Your task to perform on an android device: Add dell xps to the cart on amazon, then select checkout. Image 0: 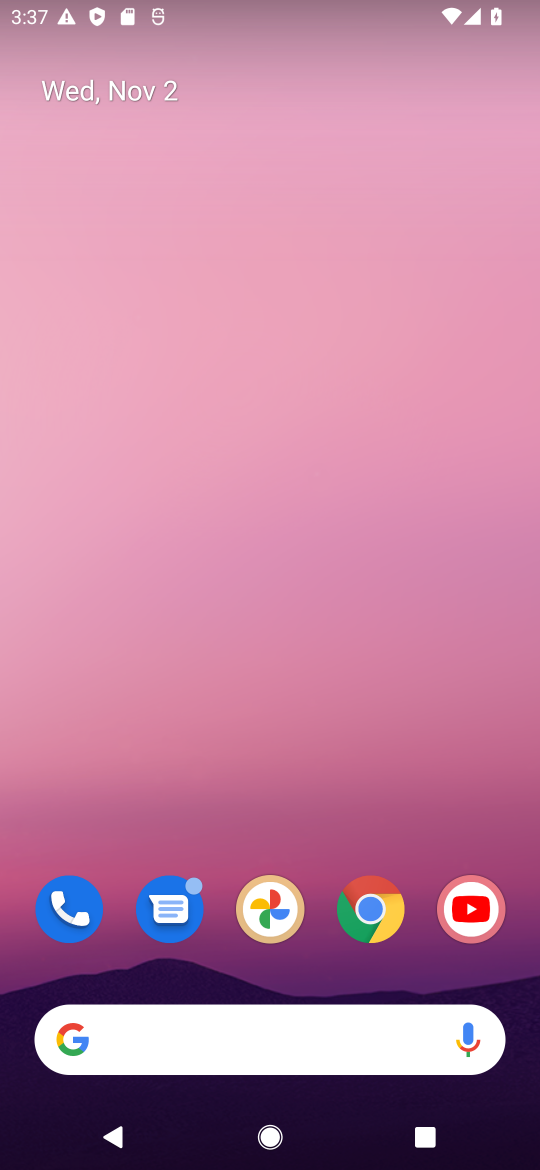
Step 0: click (377, 919)
Your task to perform on an android device: Add dell xps to the cart on amazon, then select checkout. Image 1: 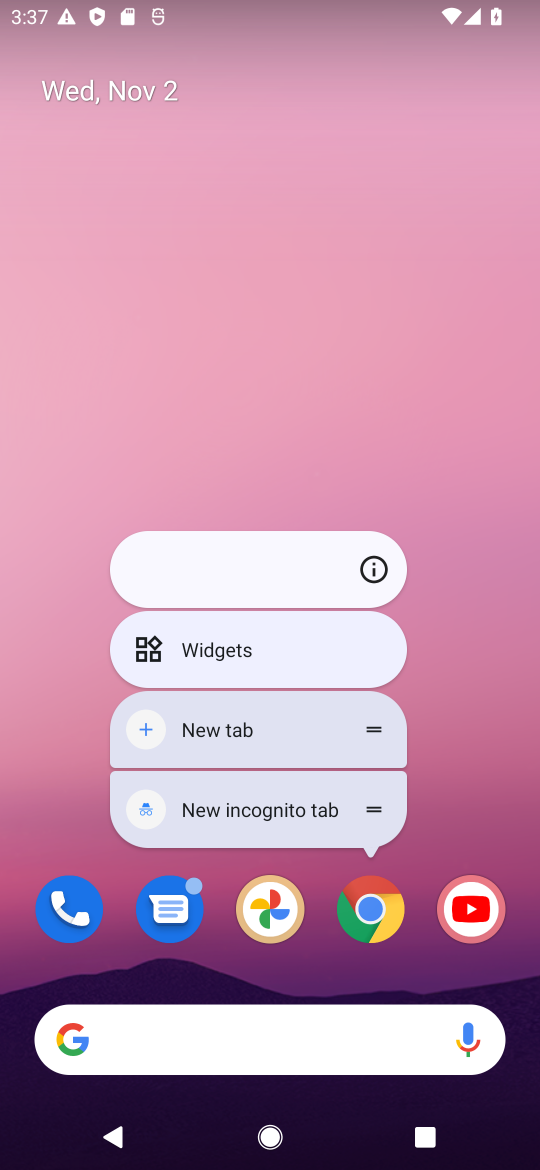
Step 1: click (369, 923)
Your task to perform on an android device: Add dell xps to the cart on amazon, then select checkout. Image 2: 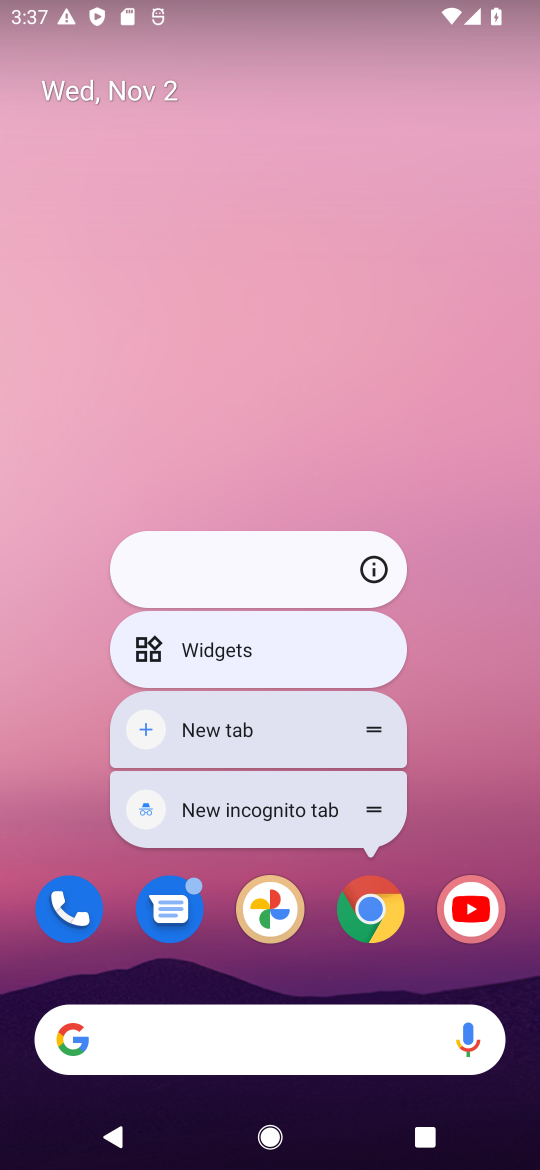
Step 2: click (374, 906)
Your task to perform on an android device: Add dell xps to the cart on amazon, then select checkout. Image 3: 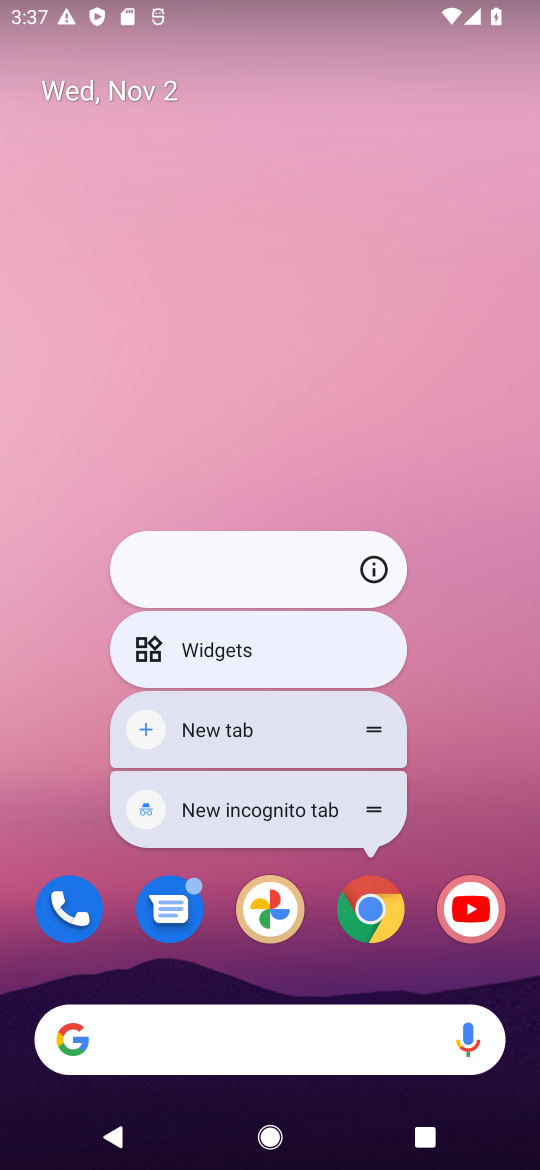
Step 3: click (373, 917)
Your task to perform on an android device: Add dell xps to the cart on amazon, then select checkout. Image 4: 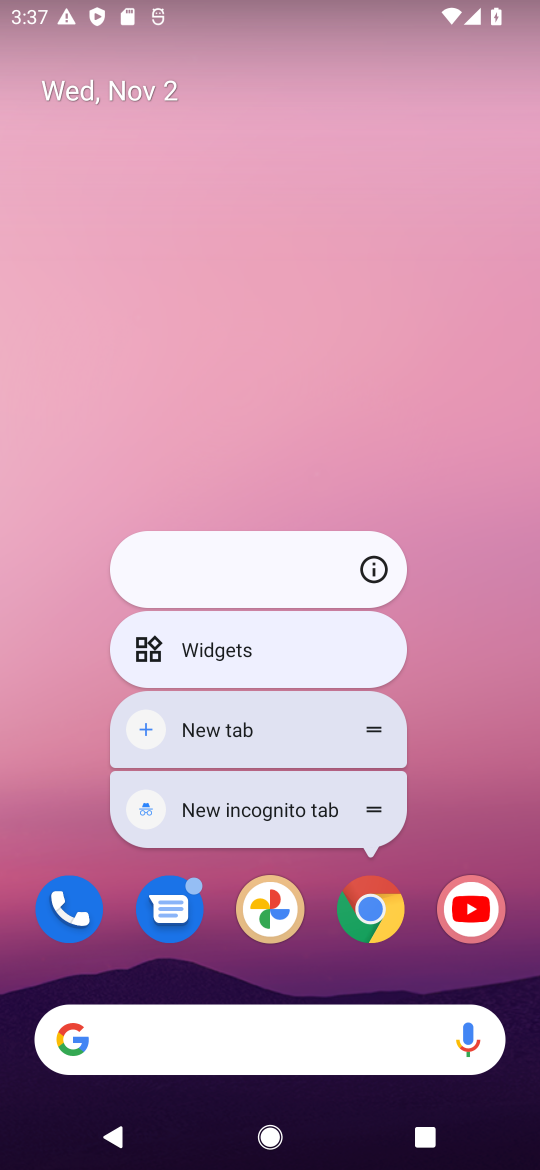
Step 4: click (340, 890)
Your task to perform on an android device: Add dell xps to the cart on amazon, then select checkout. Image 5: 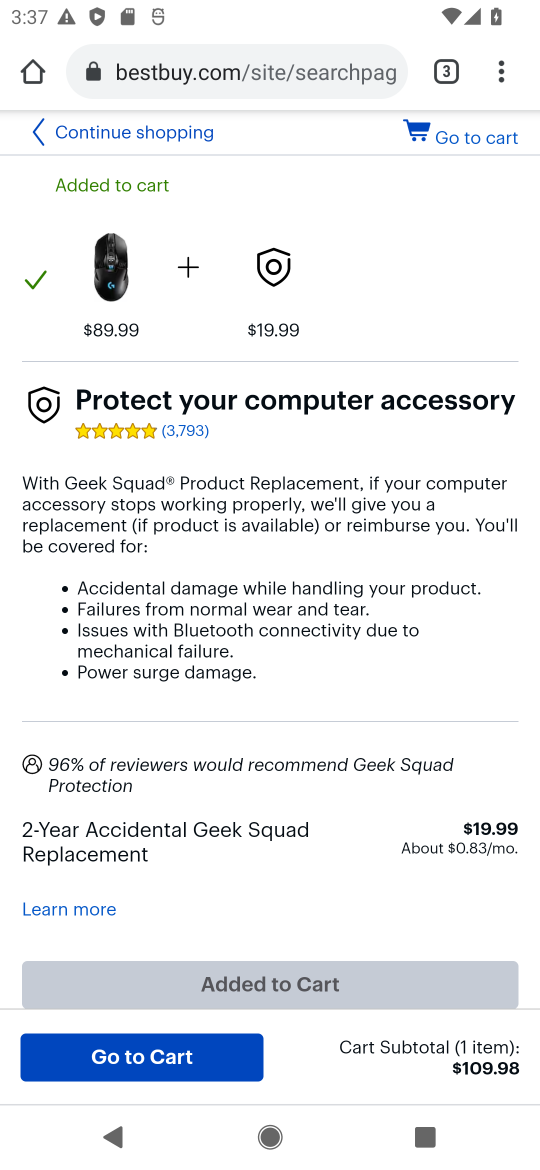
Step 5: drag from (505, 69) to (299, 142)
Your task to perform on an android device: Add dell xps to the cart on amazon, then select checkout. Image 6: 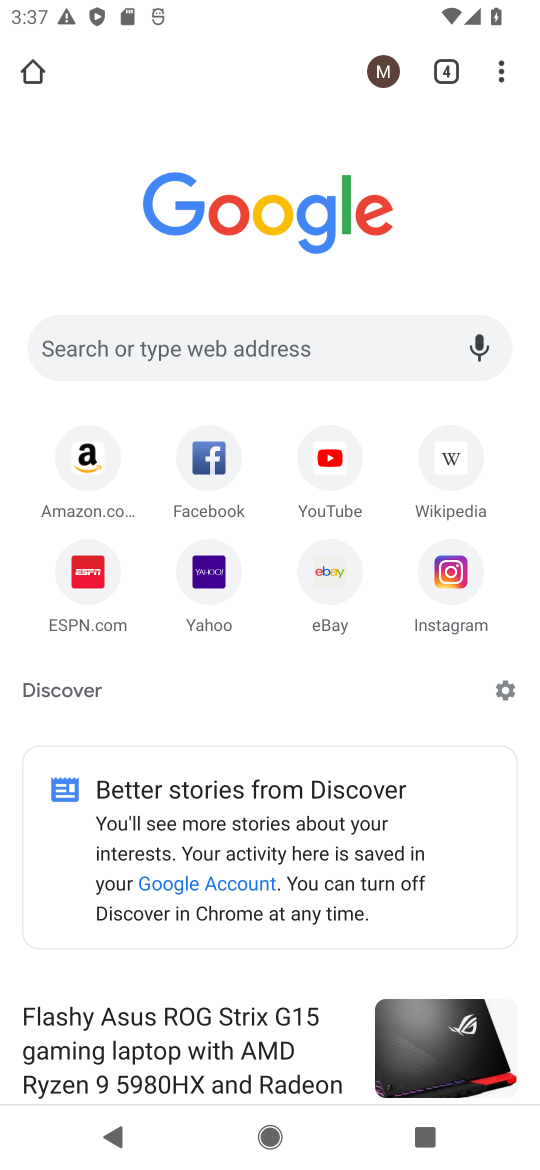
Step 6: click (78, 464)
Your task to perform on an android device: Add dell xps to the cart on amazon, then select checkout. Image 7: 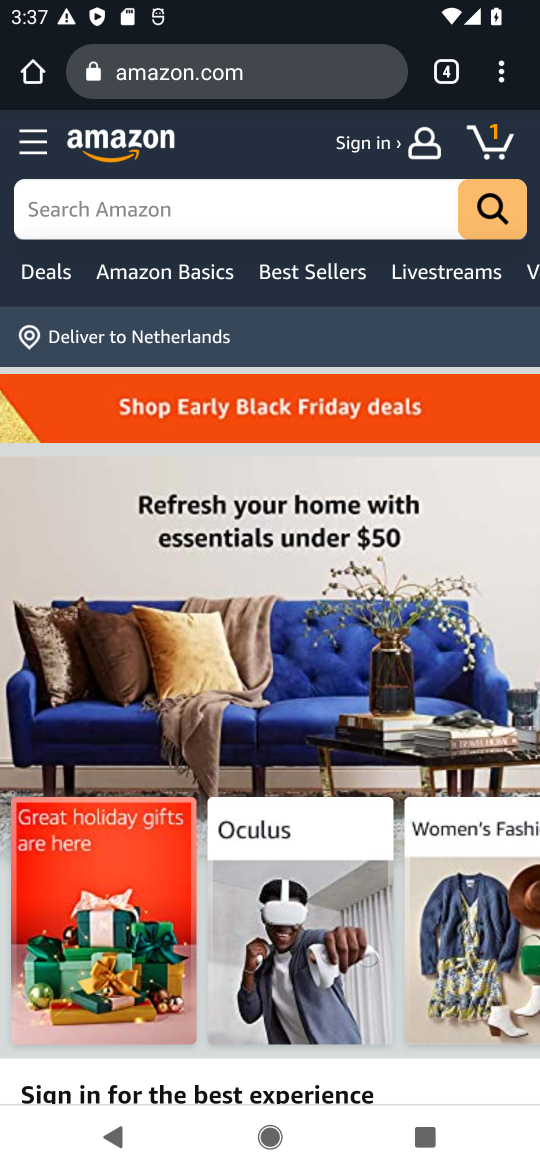
Step 7: click (156, 208)
Your task to perform on an android device: Add dell xps to the cart on amazon, then select checkout. Image 8: 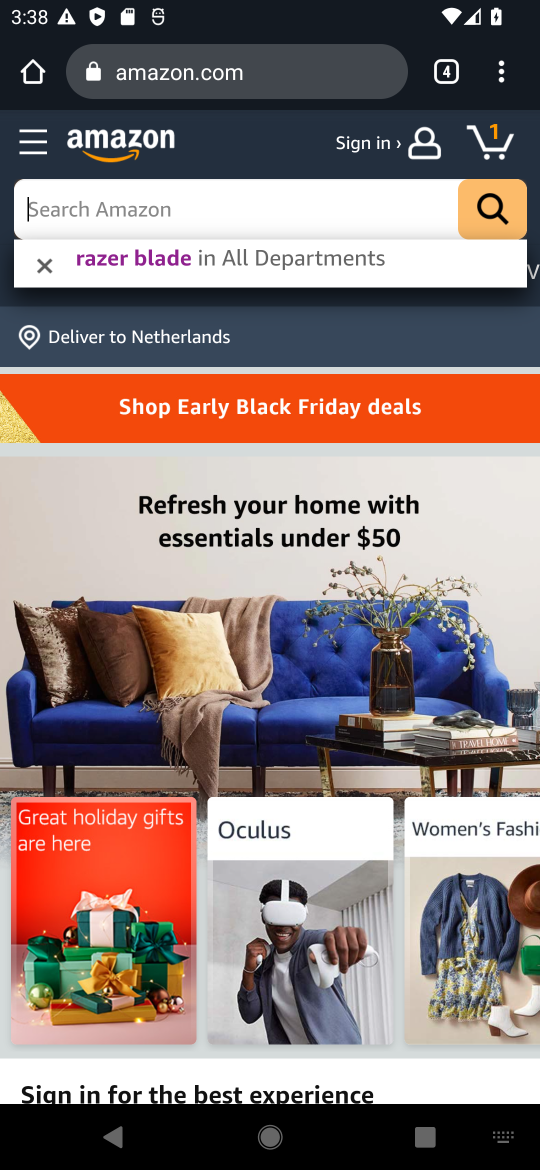
Step 8: type "dell xps"
Your task to perform on an android device: Add dell xps to the cart on amazon, then select checkout. Image 9: 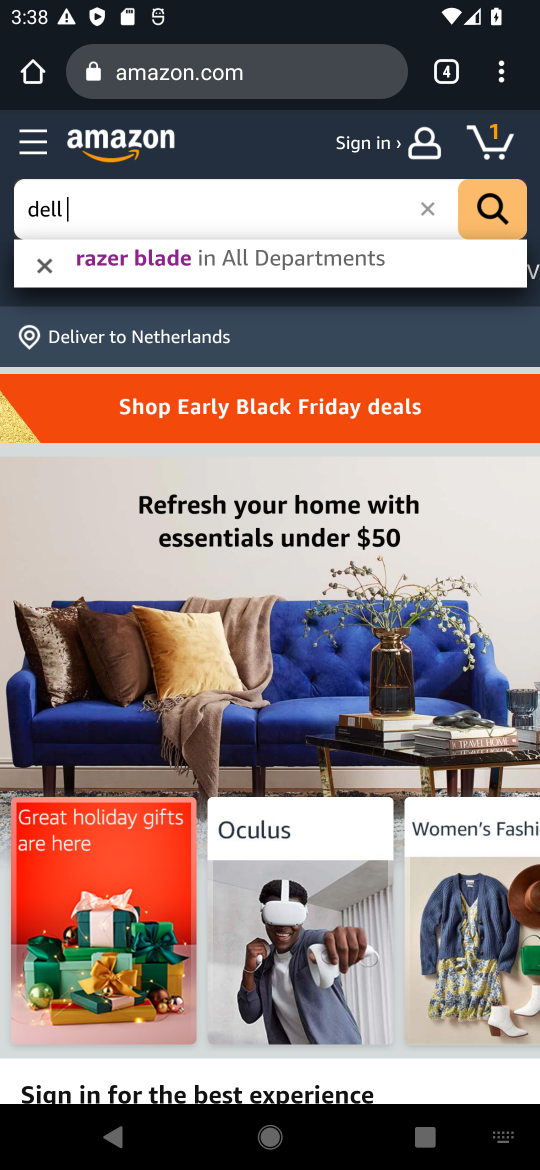
Step 9: press enter
Your task to perform on an android device: Add dell xps to the cart on amazon, then select checkout. Image 10: 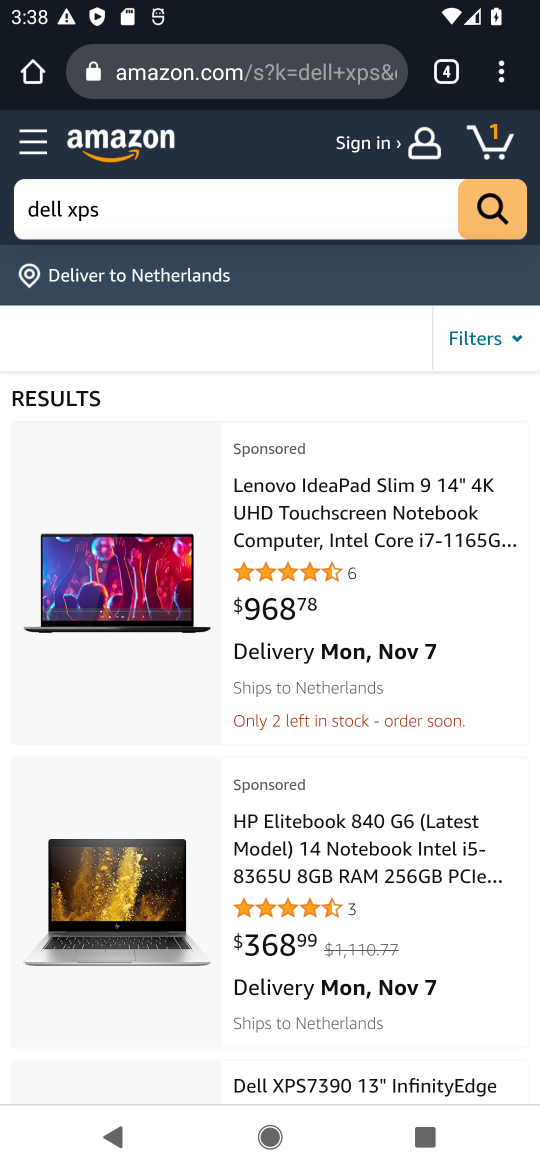
Step 10: click (333, 521)
Your task to perform on an android device: Add dell xps to the cart on amazon, then select checkout. Image 11: 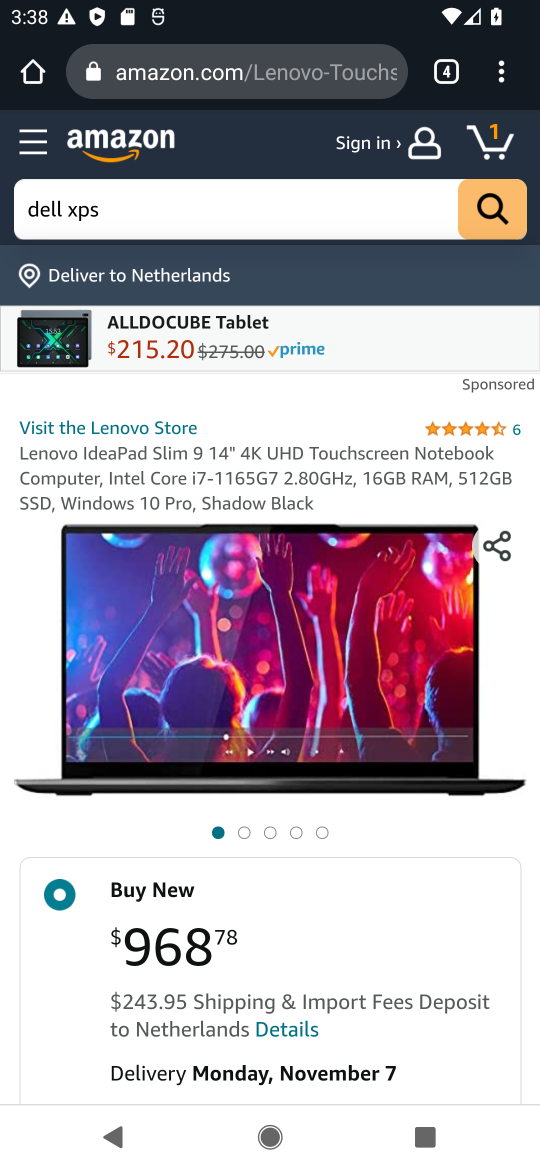
Step 11: drag from (287, 941) to (482, 403)
Your task to perform on an android device: Add dell xps to the cart on amazon, then select checkout. Image 12: 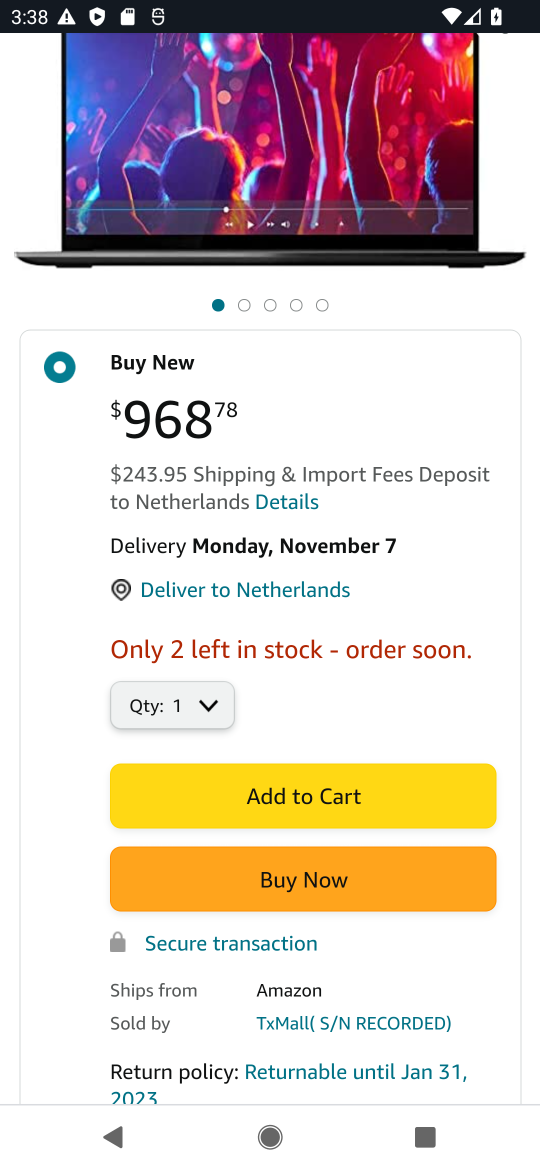
Step 12: click (305, 788)
Your task to perform on an android device: Add dell xps to the cart on amazon, then select checkout. Image 13: 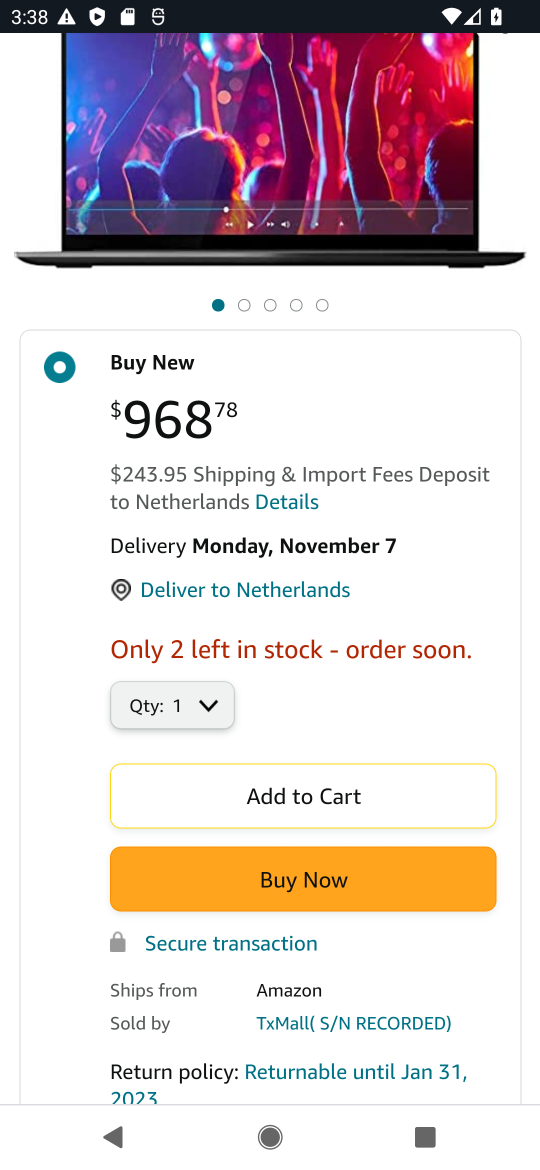
Step 13: drag from (399, 357) to (336, 898)
Your task to perform on an android device: Add dell xps to the cart on amazon, then select checkout. Image 14: 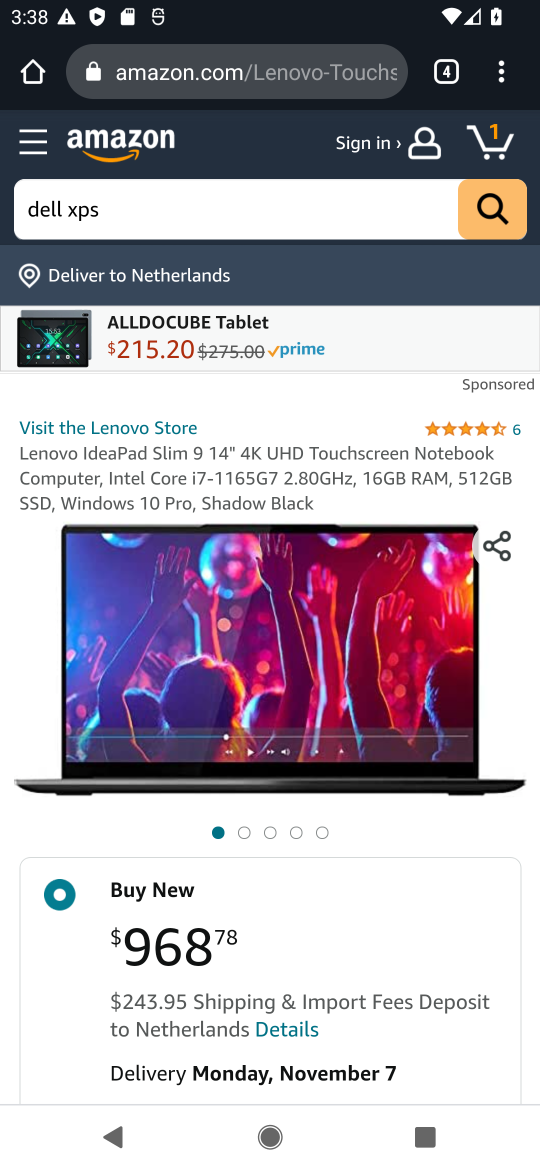
Step 14: click (495, 146)
Your task to perform on an android device: Add dell xps to the cart on amazon, then select checkout. Image 15: 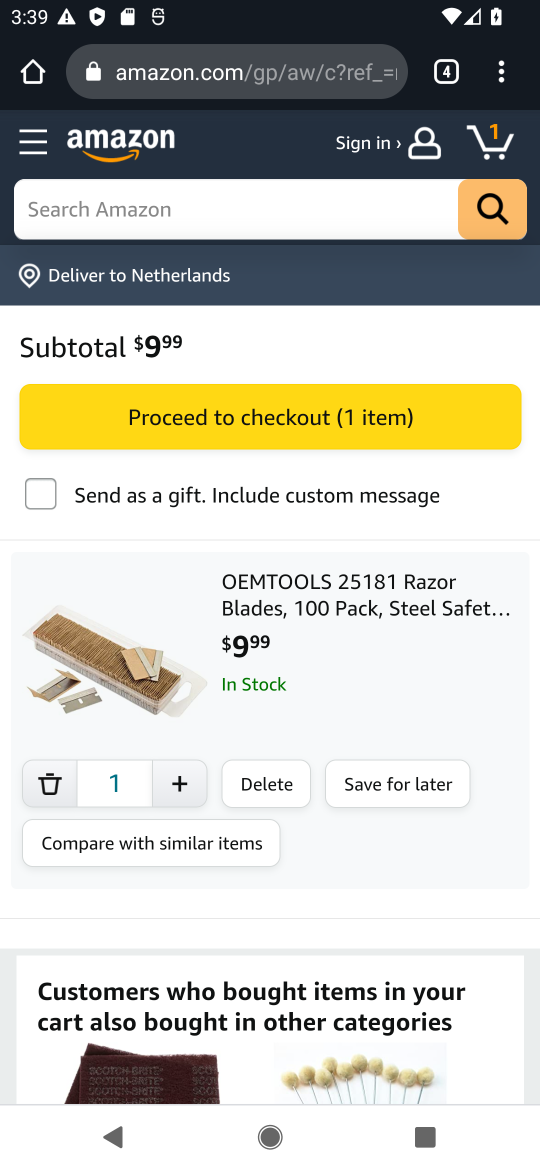
Step 15: click (266, 778)
Your task to perform on an android device: Add dell xps to the cart on amazon, then select checkout. Image 16: 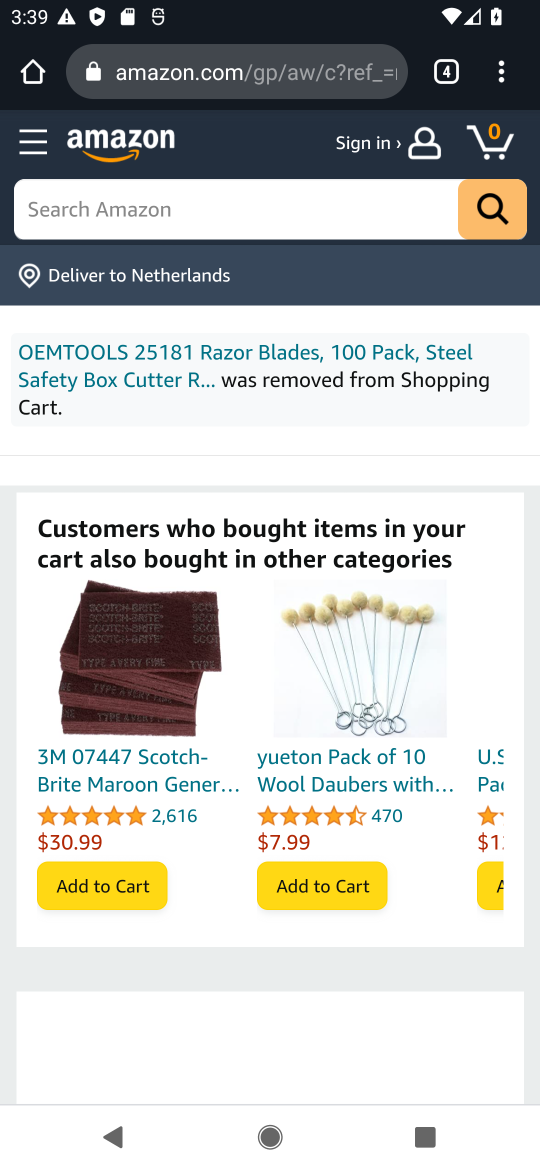
Step 16: drag from (268, 922) to (338, 714)
Your task to perform on an android device: Add dell xps to the cart on amazon, then select checkout. Image 17: 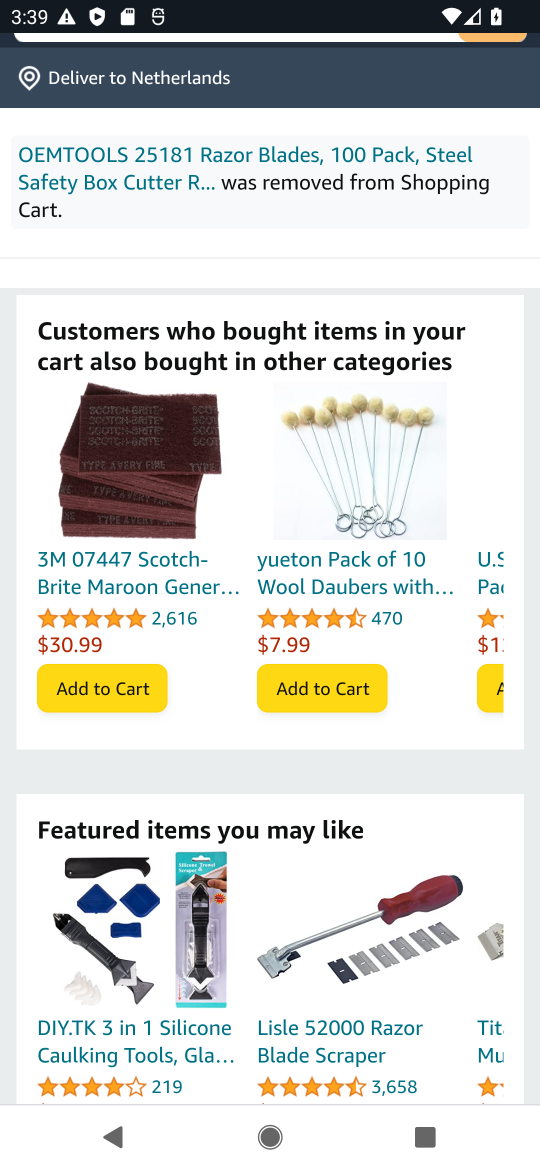
Step 17: press back button
Your task to perform on an android device: Add dell xps to the cart on amazon, then select checkout. Image 18: 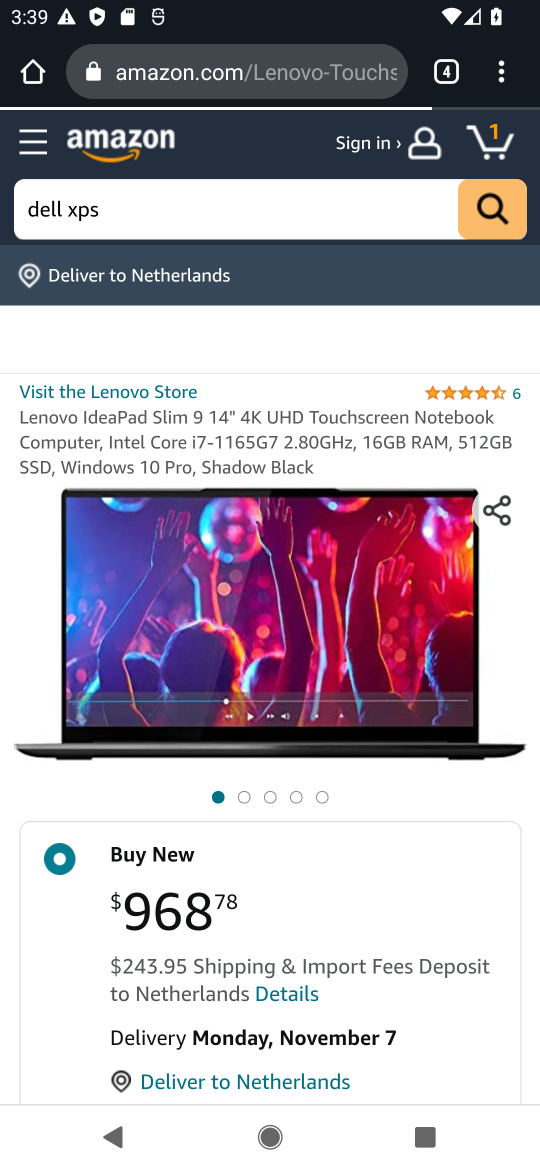
Step 18: drag from (256, 900) to (342, 845)
Your task to perform on an android device: Add dell xps to the cart on amazon, then select checkout. Image 19: 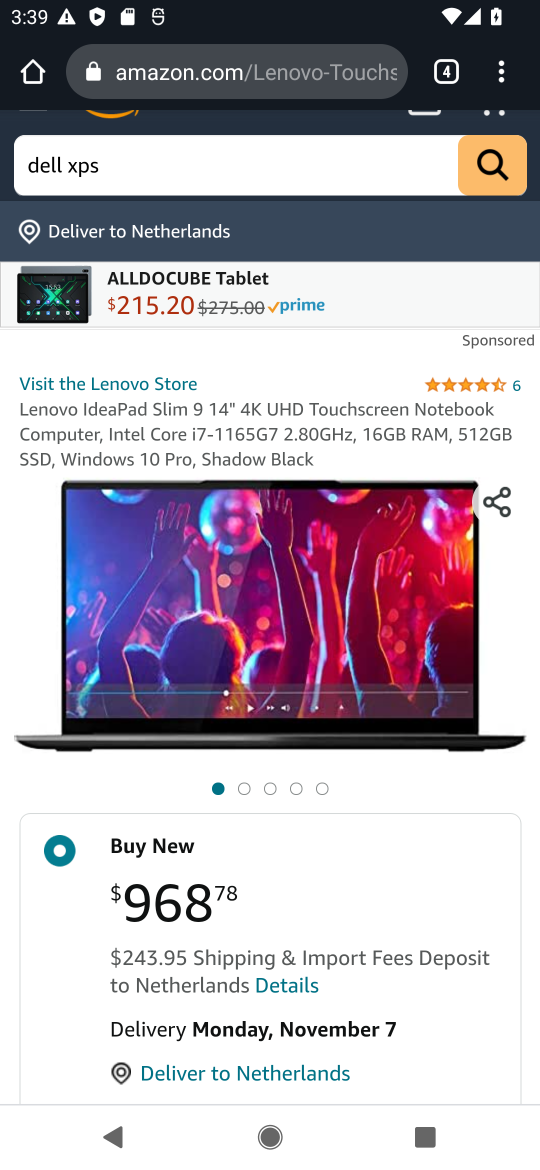
Step 19: drag from (432, 378) to (395, 715)
Your task to perform on an android device: Add dell xps to the cart on amazon, then select checkout. Image 20: 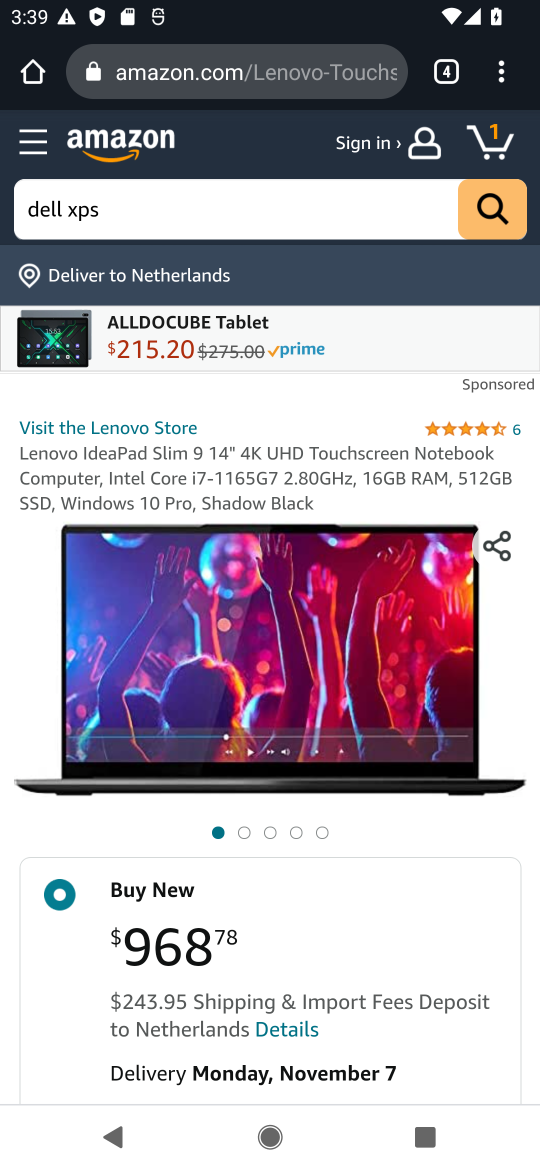
Step 20: click (491, 140)
Your task to perform on an android device: Add dell xps to the cart on amazon, then select checkout. Image 21: 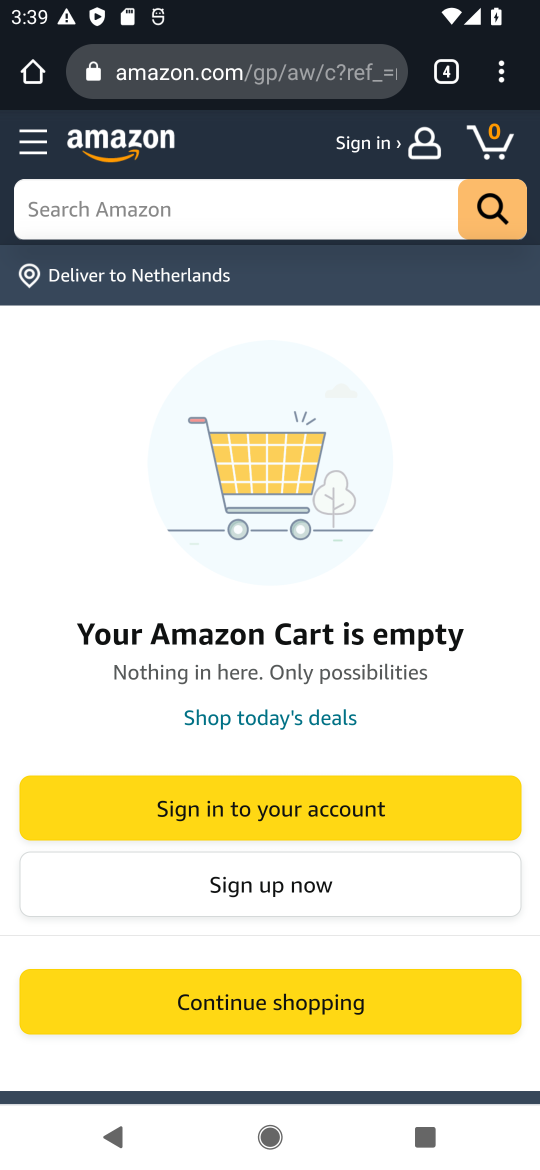
Step 21: press back button
Your task to perform on an android device: Add dell xps to the cart on amazon, then select checkout. Image 22: 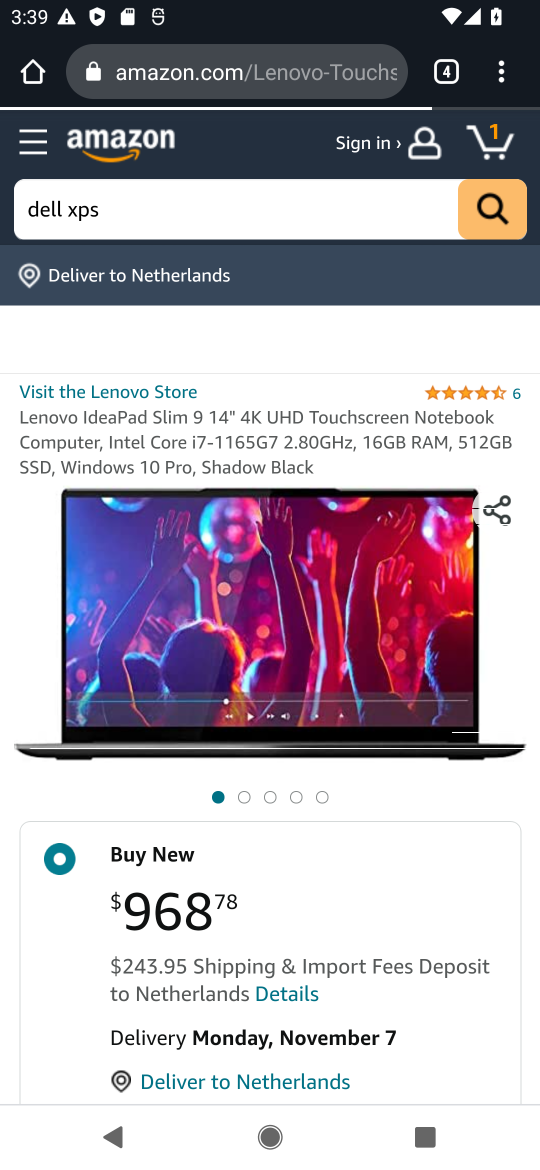
Step 22: drag from (267, 914) to (474, 342)
Your task to perform on an android device: Add dell xps to the cart on amazon, then select checkout. Image 23: 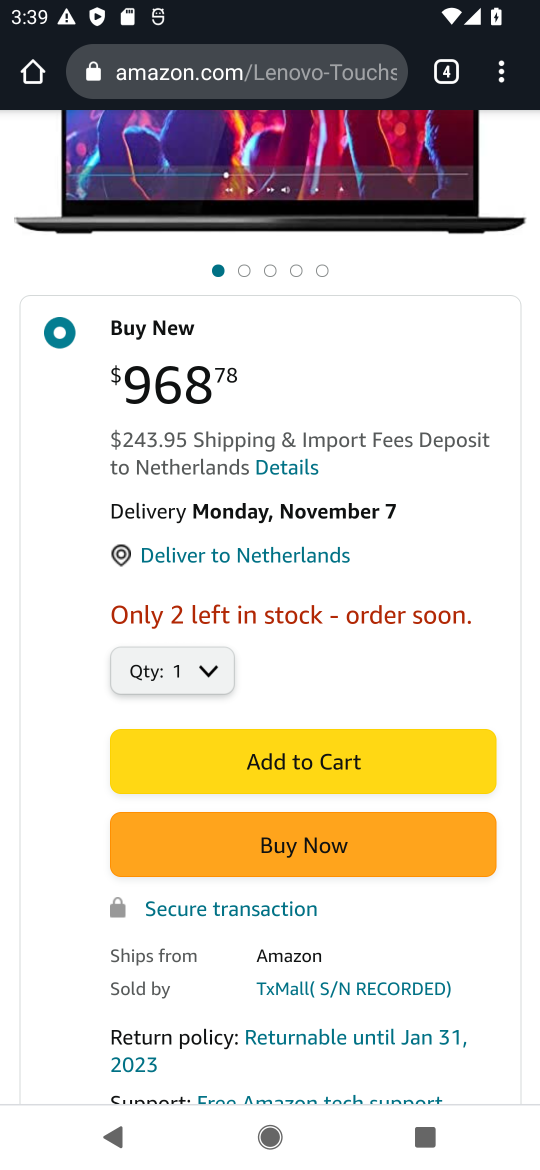
Step 23: click (323, 762)
Your task to perform on an android device: Add dell xps to the cart on amazon, then select checkout. Image 24: 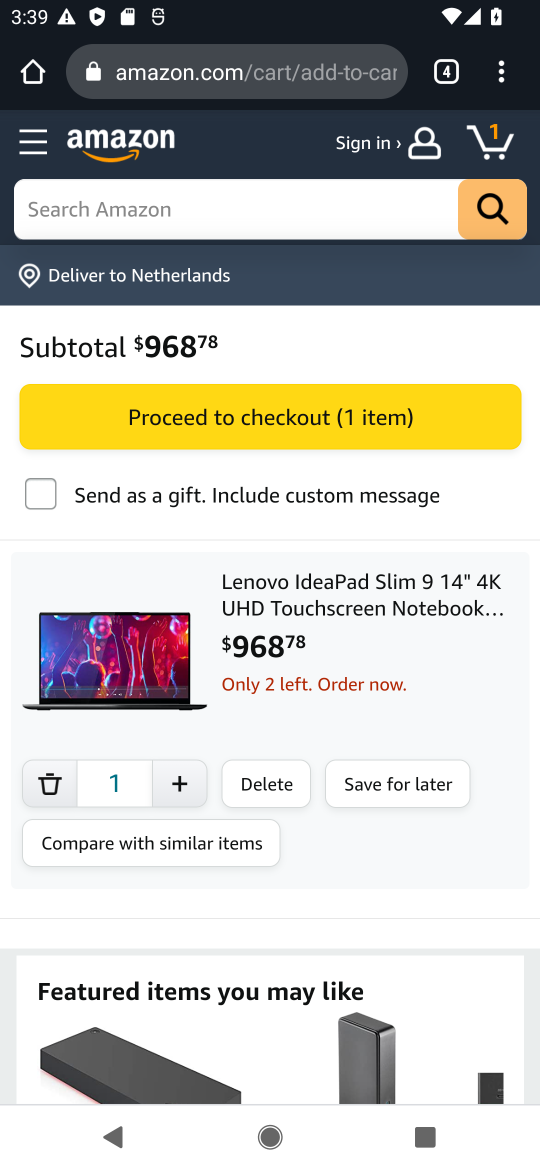
Step 24: drag from (321, 860) to (369, 676)
Your task to perform on an android device: Add dell xps to the cart on amazon, then select checkout. Image 25: 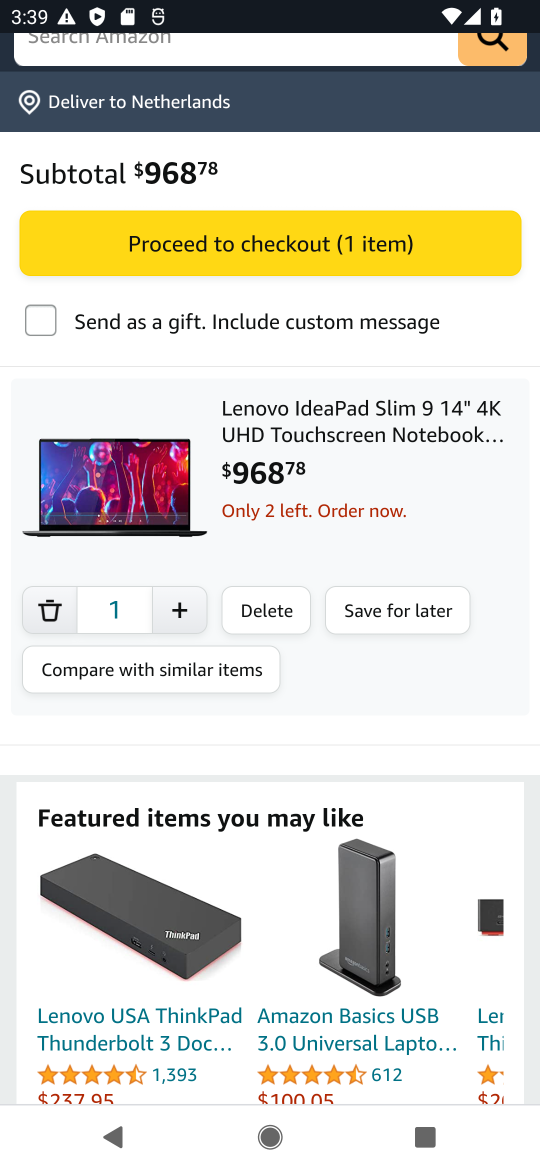
Step 25: click (306, 243)
Your task to perform on an android device: Add dell xps to the cart on amazon, then select checkout. Image 26: 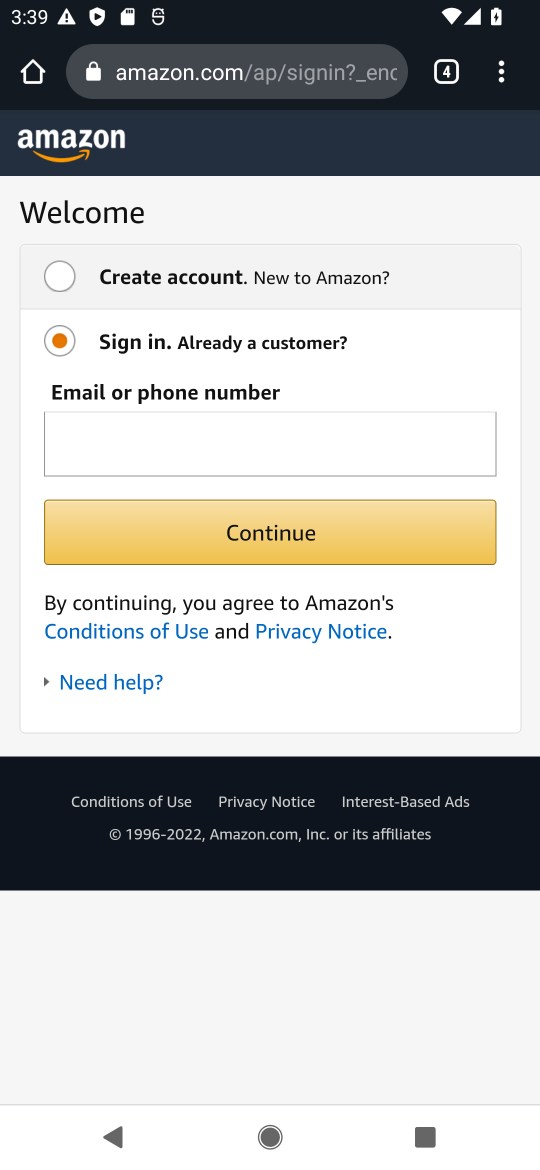
Step 26: task complete